Your task to perform on an android device: Go to Google Image 0: 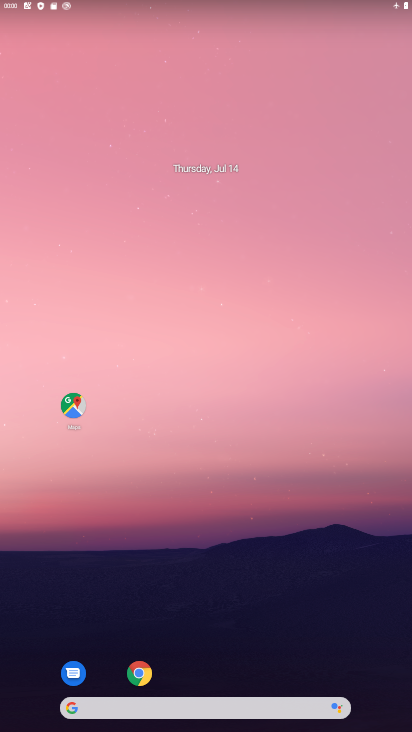
Step 0: drag from (168, 133) to (168, 97)
Your task to perform on an android device: Go to Google Image 1: 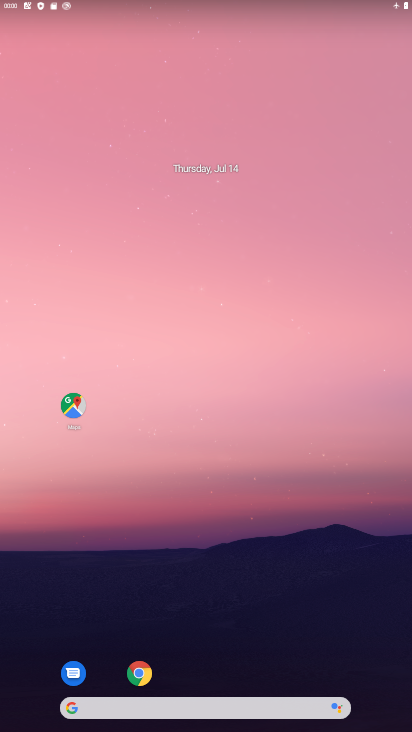
Step 1: drag from (212, 638) to (219, 44)
Your task to perform on an android device: Go to Google Image 2: 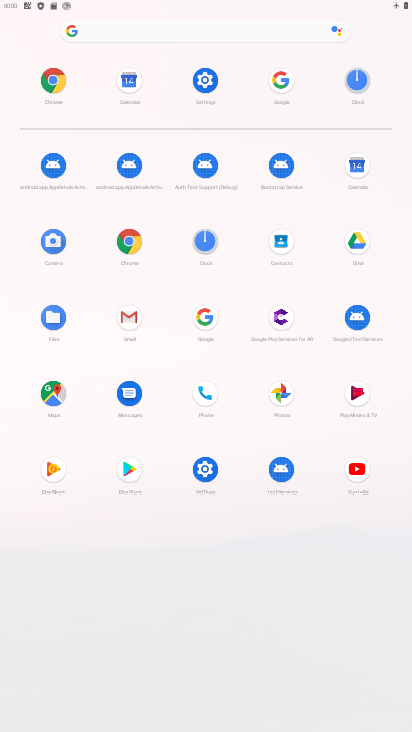
Step 2: click (278, 92)
Your task to perform on an android device: Go to Google Image 3: 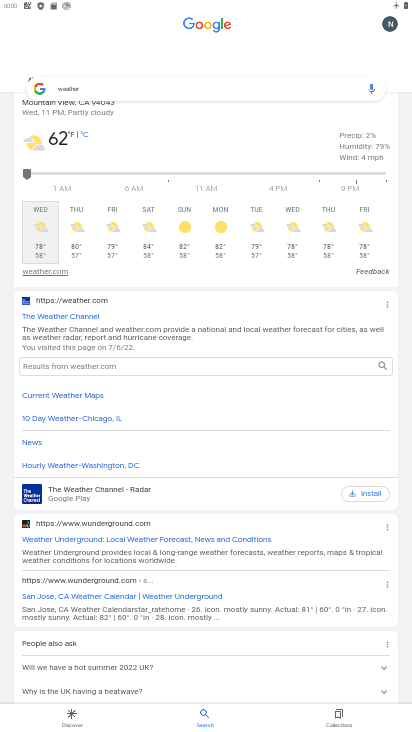
Step 3: task complete